Your task to perform on an android device: Search for sushi restaurants on Maps Image 0: 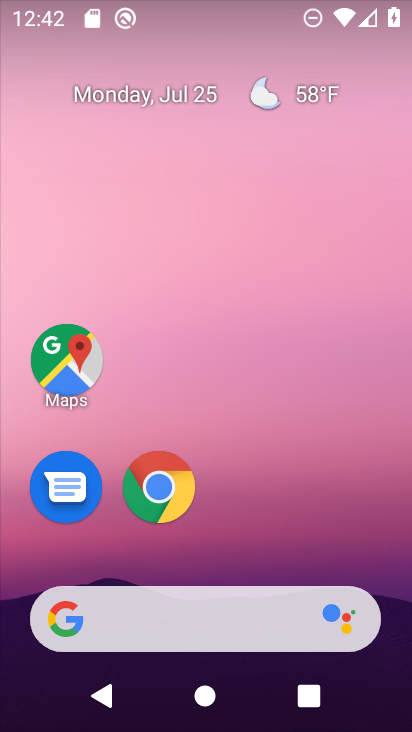
Step 0: click (56, 343)
Your task to perform on an android device: Search for sushi restaurants on Maps Image 1: 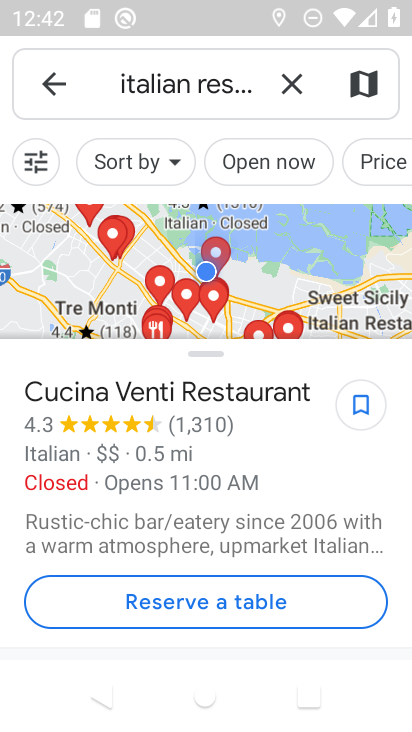
Step 1: click (283, 90)
Your task to perform on an android device: Search for sushi restaurants on Maps Image 2: 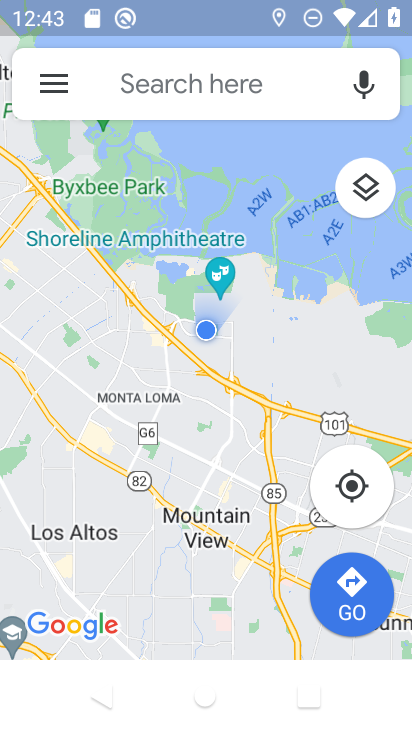
Step 2: click (179, 99)
Your task to perform on an android device: Search for sushi restaurants on Maps Image 3: 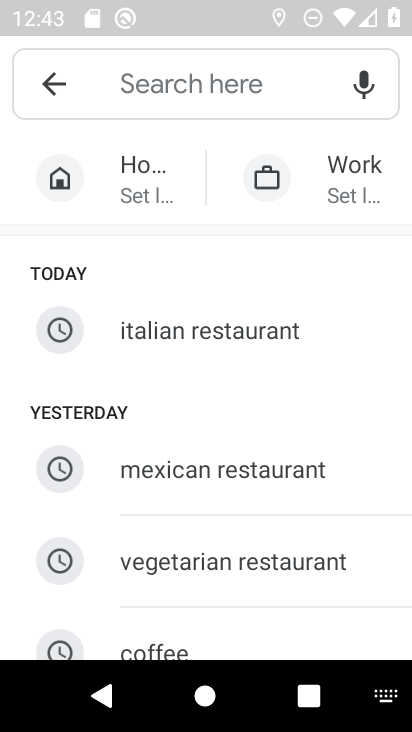
Step 3: drag from (216, 590) to (276, 111)
Your task to perform on an android device: Search for sushi restaurants on Maps Image 4: 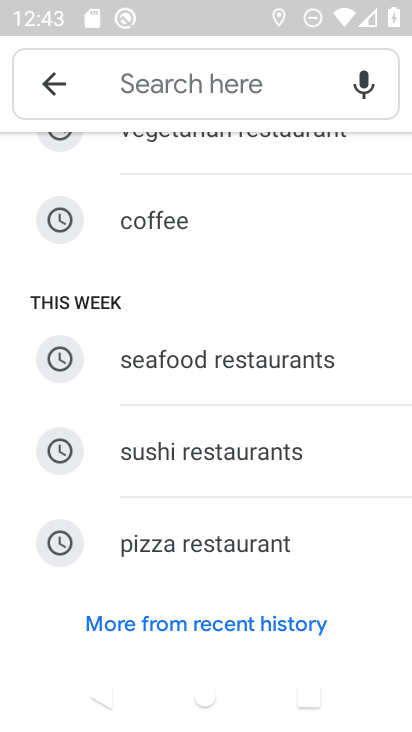
Step 4: click (175, 458)
Your task to perform on an android device: Search for sushi restaurants on Maps Image 5: 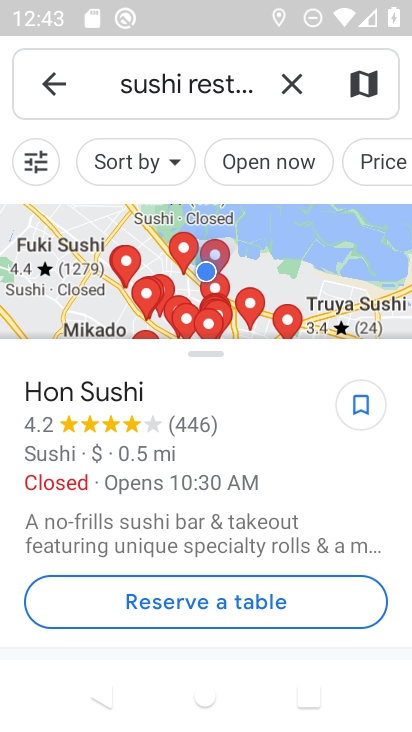
Step 5: task complete